Your task to perform on an android device: Go to Google Image 0: 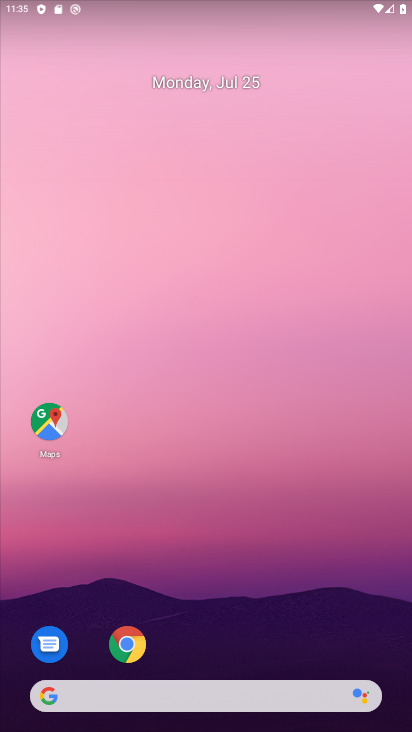
Step 0: drag from (231, 669) to (288, 8)
Your task to perform on an android device: Go to Google Image 1: 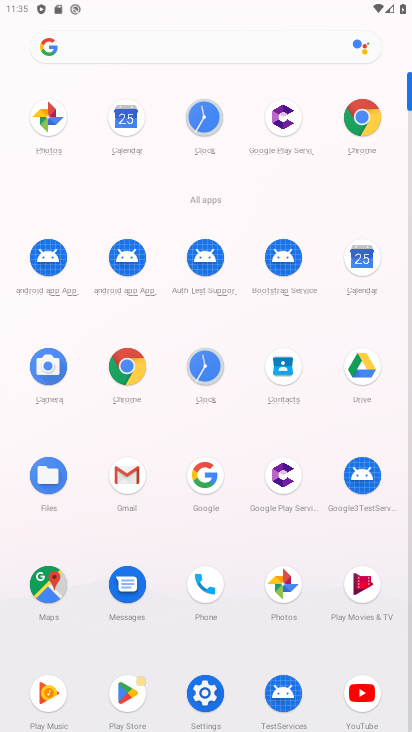
Step 1: click (214, 483)
Your task to perform on an android device: Go to Google Image 2: 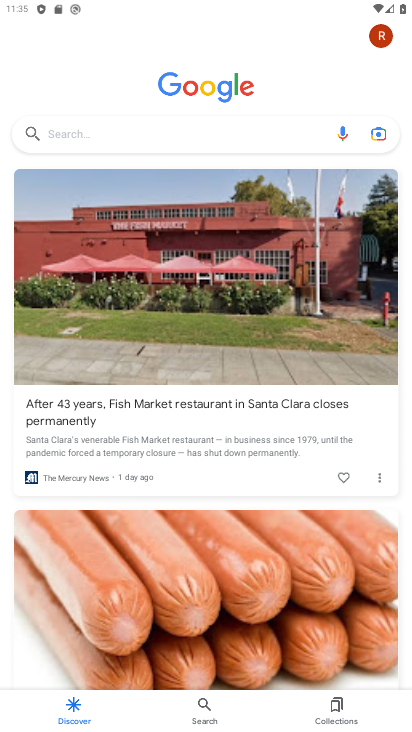
Step 2: task complete